Your task to perform on an android device: open app "Spotify" (install if not already installed) and enter user name: "infallible@icloud.com" and password: "implored" Image 0: 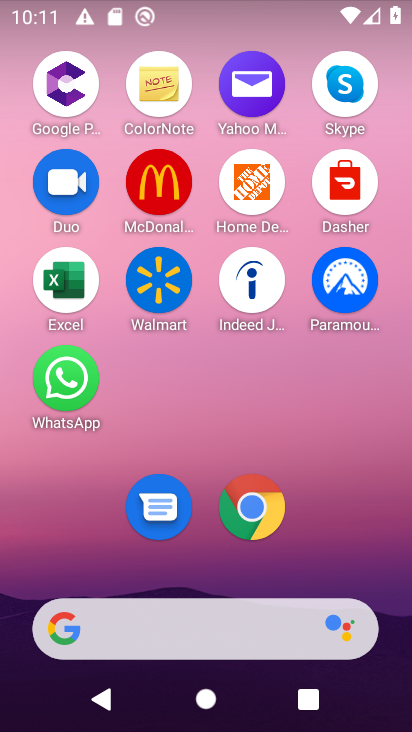
Step 0: drag from (393, 645) to (312, 190)
Your task to perform on an android device: open app "Spotify" (install if not already installed) and enter user name: "infallible@icloud.com" and password: "implored" Image 1: 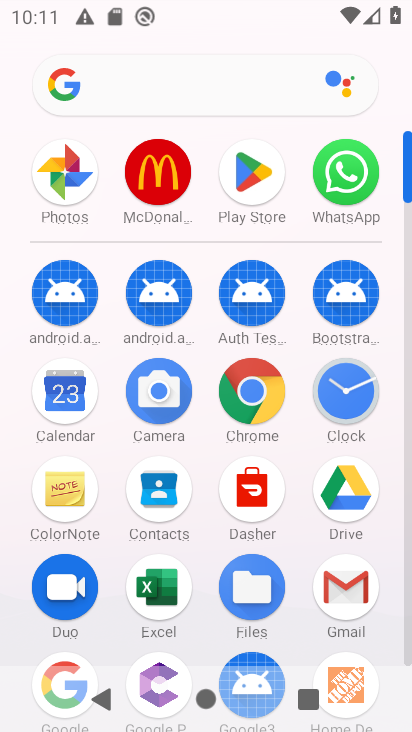
Step 1: click (408, 624)
Your task to perform on an android device: open app "Spotify" (install if not already installed) and enter user name: "infallible@icloud.com" and password: "implored" Image 2: 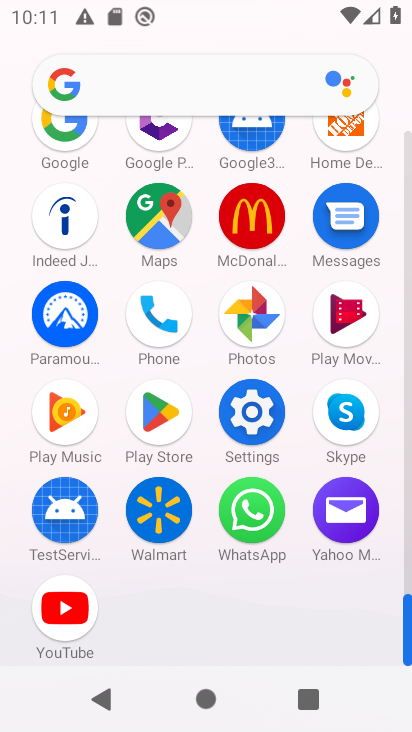
Step 2: click (157, 409)
Your task to perform on an android device: open app "Spotify" (install if not already installed) and enter user name: "infallible@icloud.com" and password: "implored" Image 3: 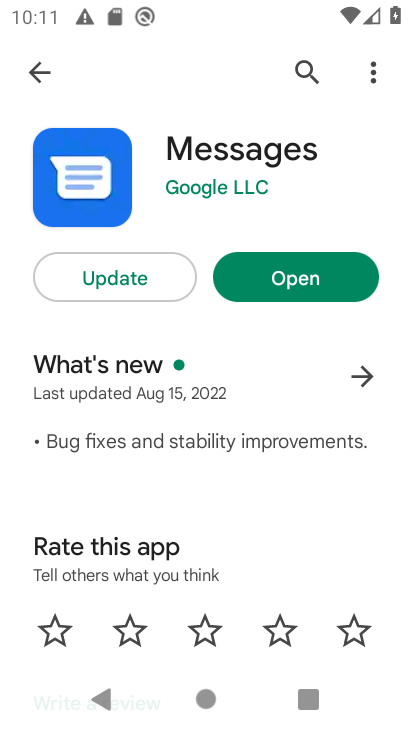
Step 3: click (301, 63)
Your task to perform on an android device: open app "Spotify" (install if not already installed) and enter user name: "infallible@icloud.com" and password: "implored" Image 4: 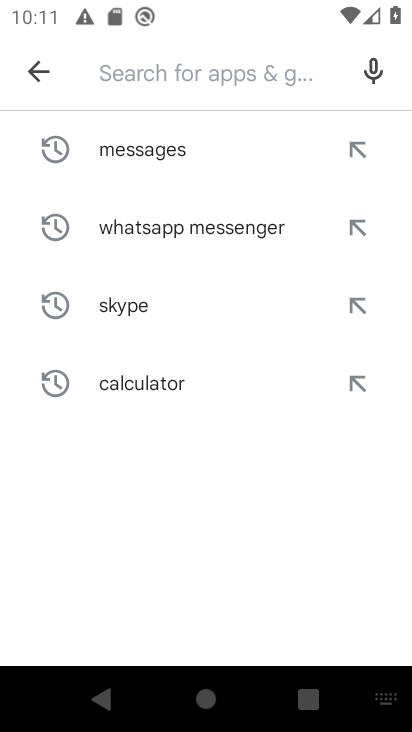
Step 4: type "Spotify"
Your task to perform on an android device: open app "Spotify" (install if not already installed) and enter user name: "infallible@icloud.com" and password: "implored" Image 5: 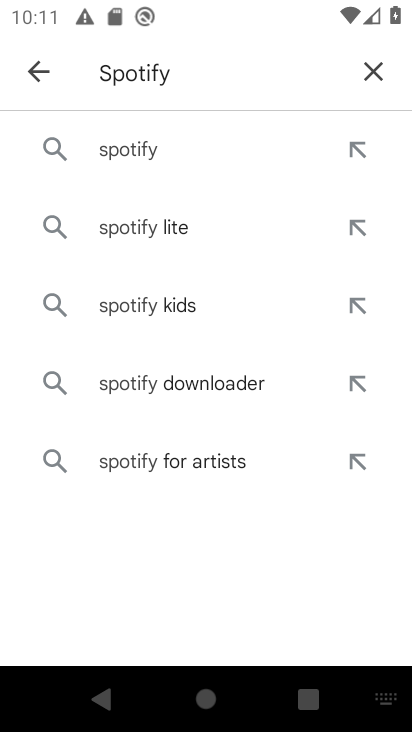
Step 5: click (125, 142)
Your task to perform on an android device: open app "Spotify" (install if not already installed) and enter user name: "infallible@icloud.com" and password: "implored" Image 6: 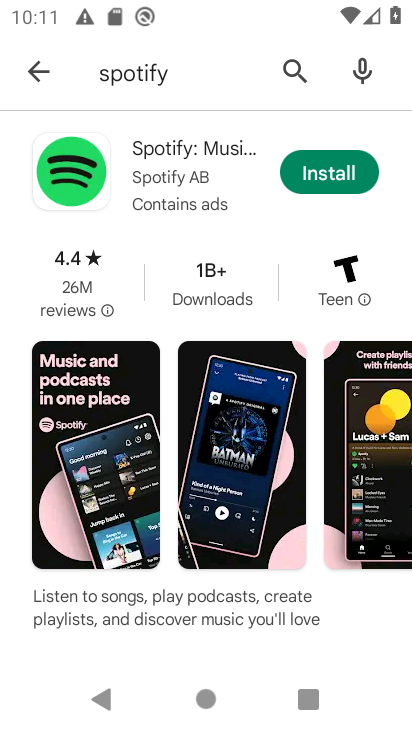
Step 6: click (166, 151)
Your task to perform on an android device: open app "Spotify" (install if not already installed) and enter user name: "infallible@icloud.com" and password: "implored" Image 7: 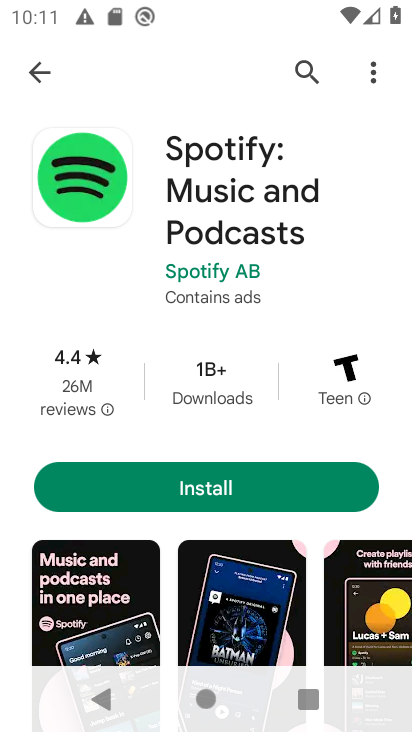
Step 7: click (208, 488)
Your task to perform on an android device: open app "Spotify" (install if not already installed) and enter user name: "infallible@icloud.com" and password: "implored" Image 8: 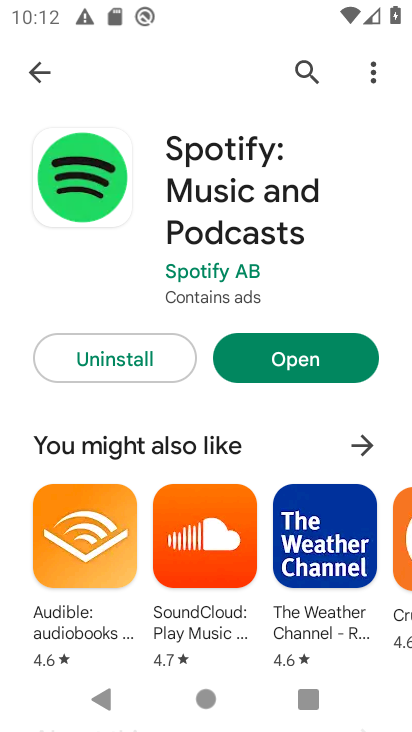
Step 8: click (291, 360)
Your task to perform on an android device: open app "Spotify" (install if not already installed) and enter user name: "infallible@icloud.com" and password: "implored" Image 9: 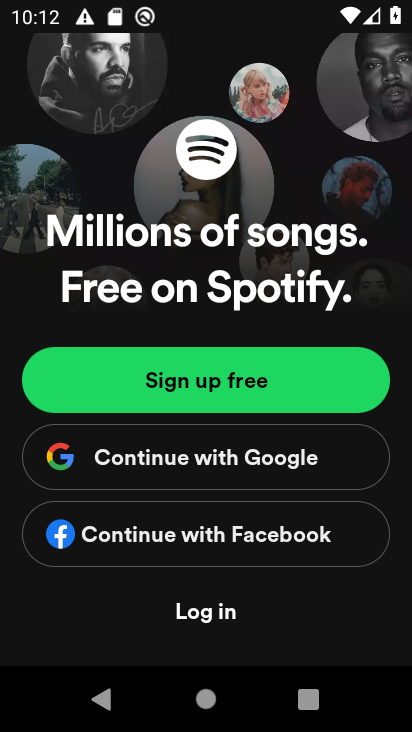
Step 9: click (203, 615)
Your task to perform on an android device: open app "Spotify" (install if not already installed) and enter user name: "infallible@icloud.com" and password: "implored" Image 10: 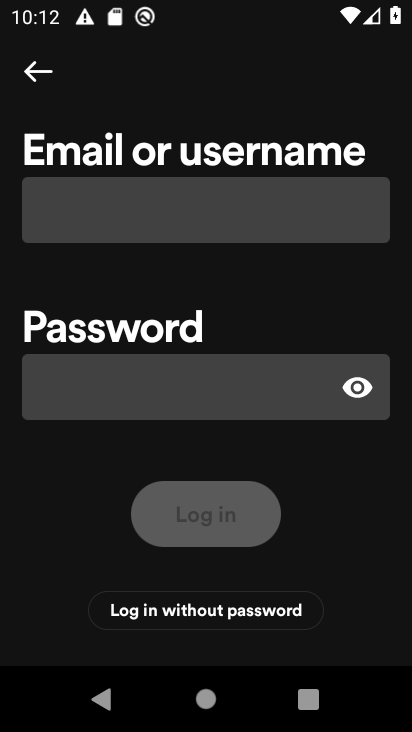
Step 10: click (144, 203)
Your task to perform on an android device: open app "Spotify" (install if not already installed) and enter user name: "infallible@icloud.com" and password: "implored" Image 11: 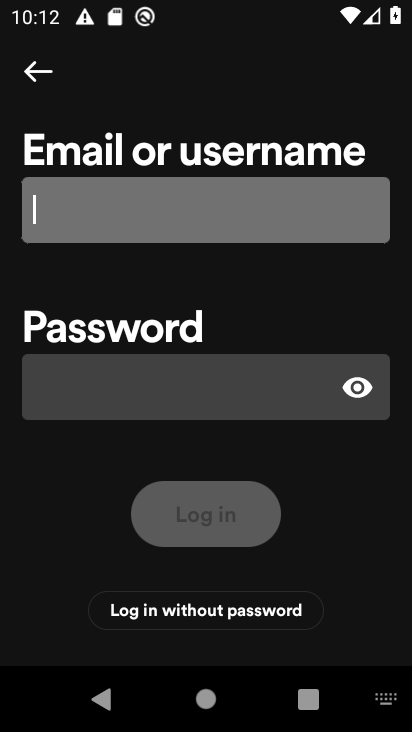
Step 11: type "infallible@icloud.com"
Your task to perform on an android device: open app "Spotify" (install if not already installed) and enter user name: "infallible@icloud.com" and password: "implored" Image 12: 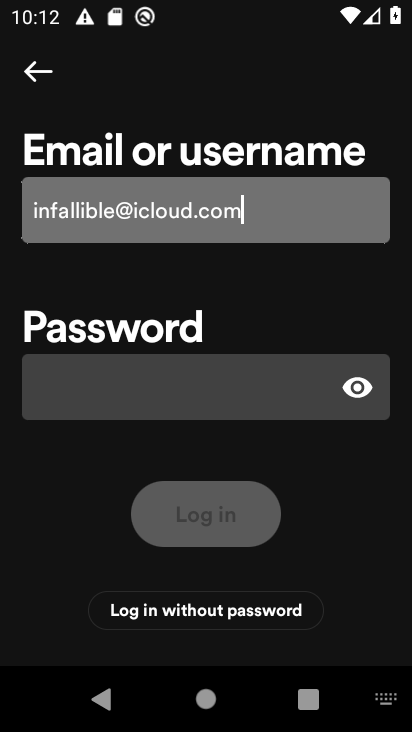
Step 12: click (80, 389)
Your task to perform on an android device: open app "Spotify" (install if not already installed) and enter user name: "infallible@icloud.com" and password: "implored" Image 13: 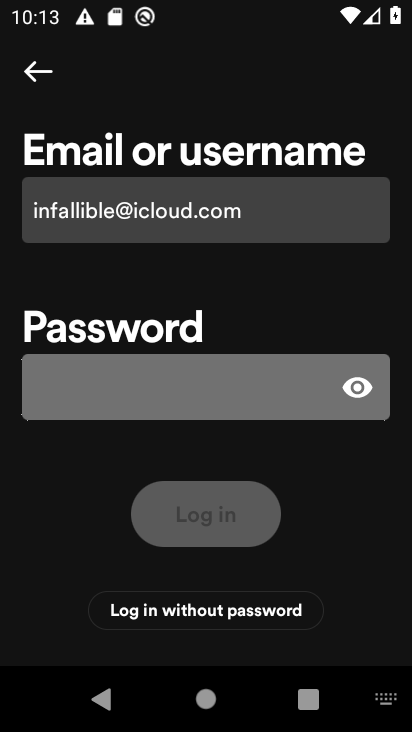
Step 13: type "implored"
Your task to perform on an android device: open app "Spotify" (install if not already installed) and enter user name: "infallible@icloud.com" and password: "implored" Image 14: 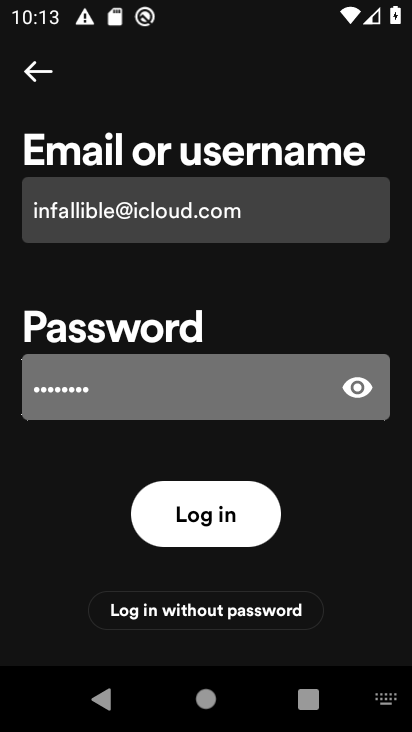
Step 14: task complete